Your task to perform on an android device: Open network settings Image 0: 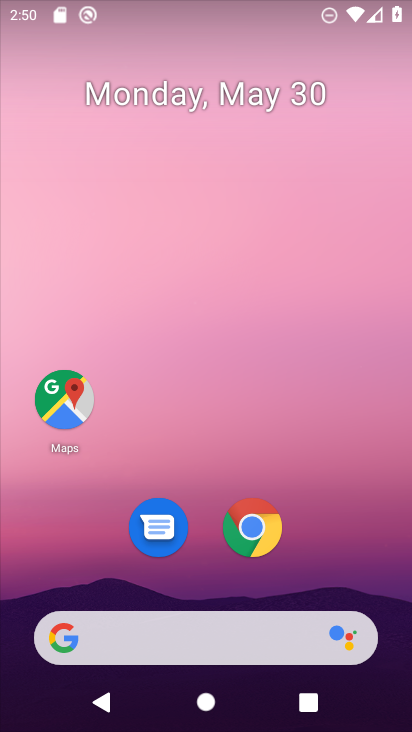
Step 0: drag from (270, 572) to (227, 81)
Your task to perform on an android device: Open network settings Image 1: 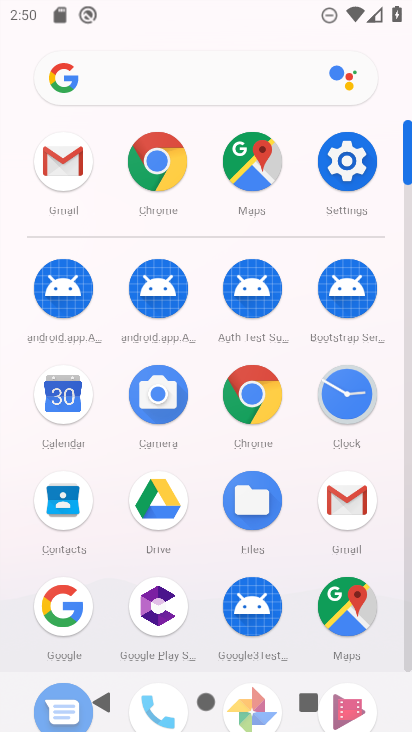
Step 1: click (345, 162)
Your task to perform on an android device: Open network settings Image 2: 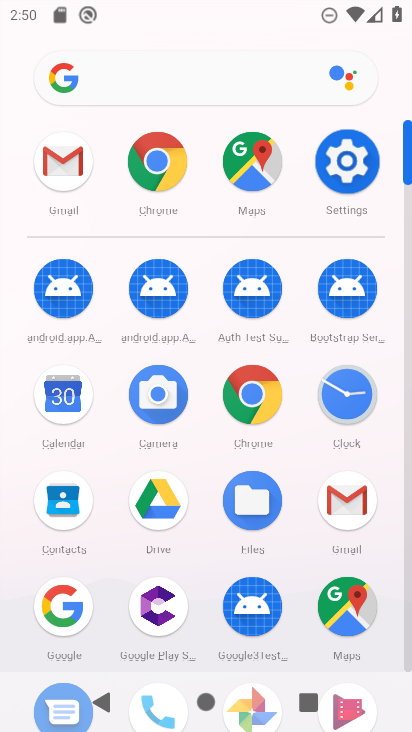
Step 2: click (345, 165)
Your task to perform on an android device: Open network settings Image 3: 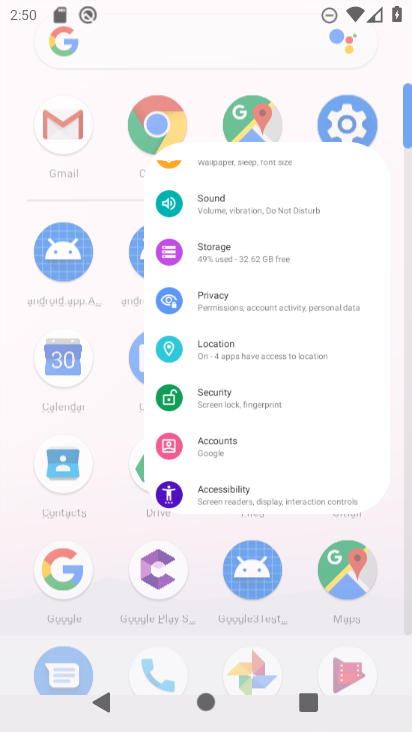
Step 3: click (345, 165)
Your task to perform on an android device: Open network settings Image 4: 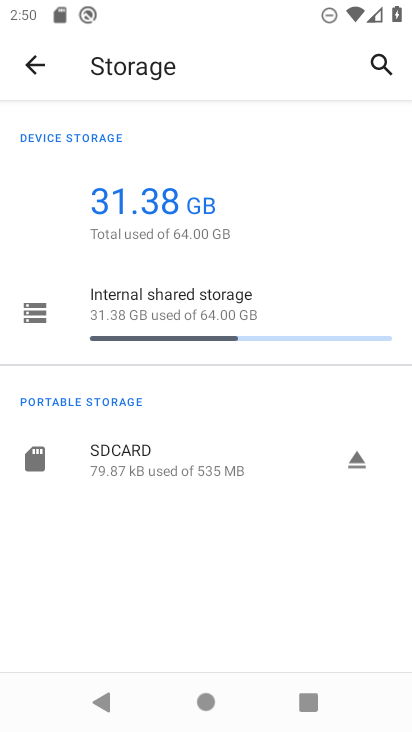
Step 4: click (34, 66)
Your task to perform on an android device: Open network settings Image 5: 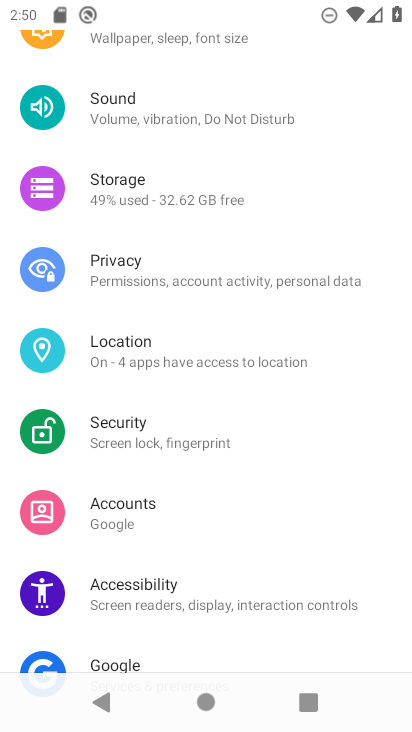
Step 5: drag from (129, 266) to (172, 559)
Your task to perform on an android device: Open network settings Image 6: 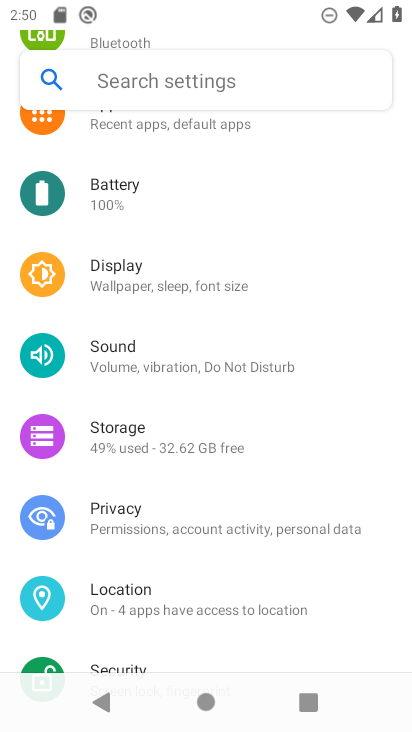
Step 6: drag from (141, 118) to (141, 394)
Your task to perform on an android device: Open network settings Image 7: 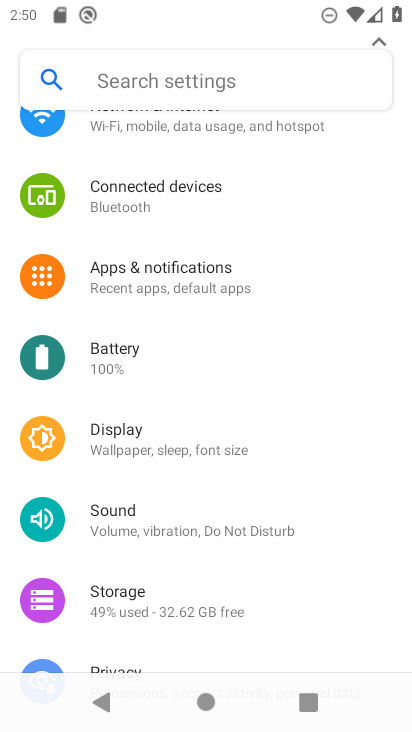
Step 7: drag from (168, 404) to (169, 308)
Your task to perform on an android device: Open network settings Image 8: 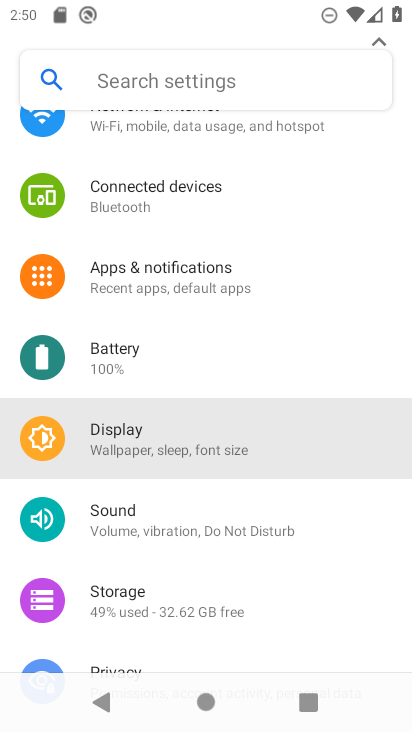
Step 8: drag from (163, 227) to (196, 443)
Your task to perform on an android device: Open network settings Image 9: 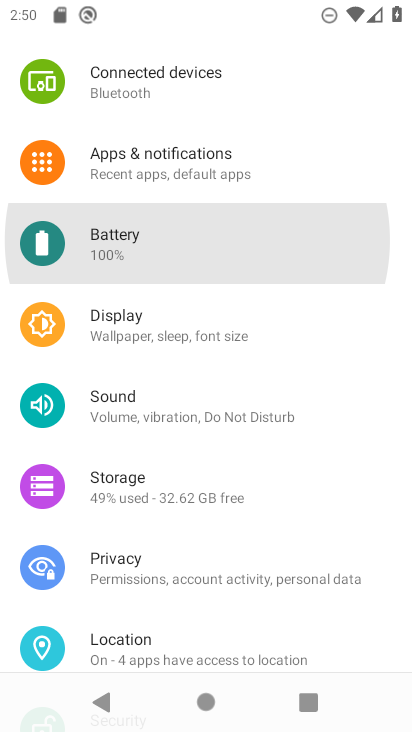
Step 9: drag from (145, 263) to (159, 432)
Your task to perform on an android device: Open network settings Image 10: 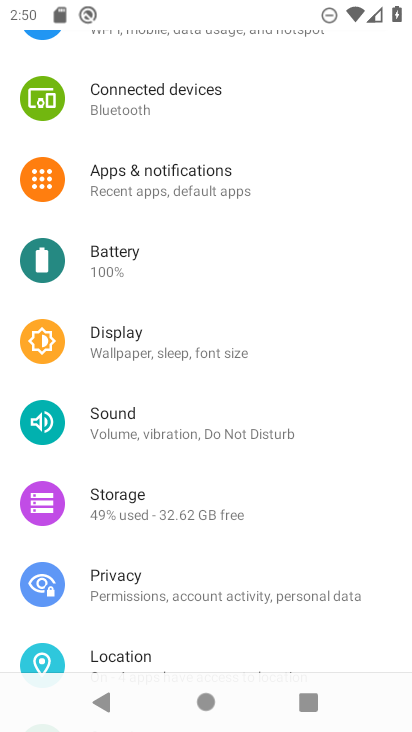
Step 10: drag from (127, 198) to (147, 351)
Your task to perform on an android device: Open network settings Image 11: 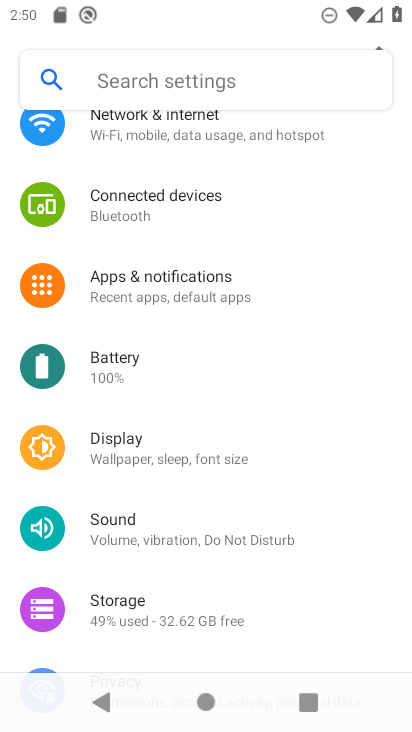
Step 11: drag from (134, 214) to (146, 418)
Your task to perform on an android device: Open network settings Image 12: 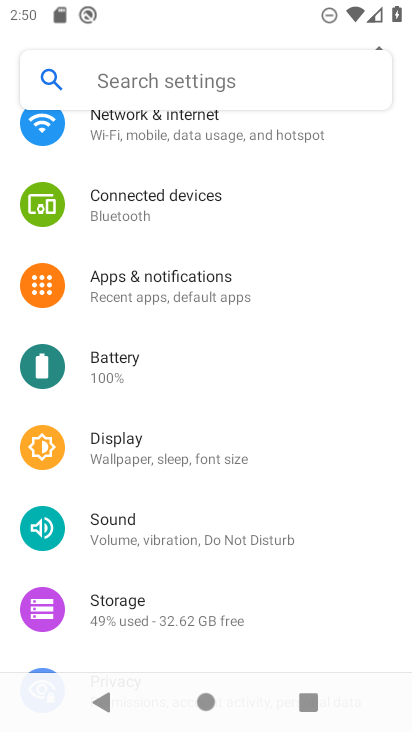
Step 12: drag from (141, 467) to (127, 557)
Your task to perform on an android device: Open network settings Image 13: 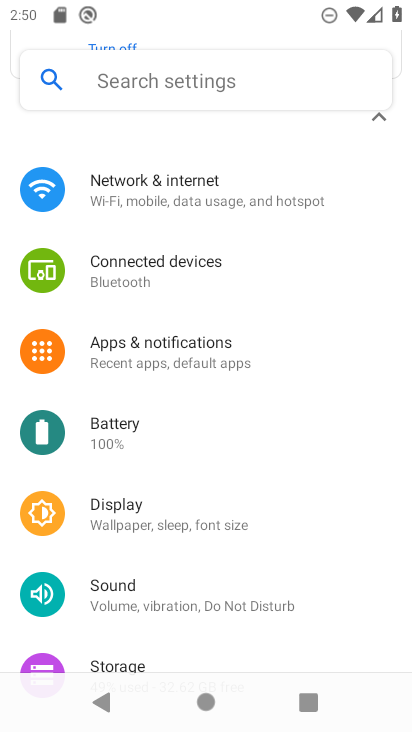
Step 13: click (160, 122)
Your task to perform on an android device: Open network settings Image 14: 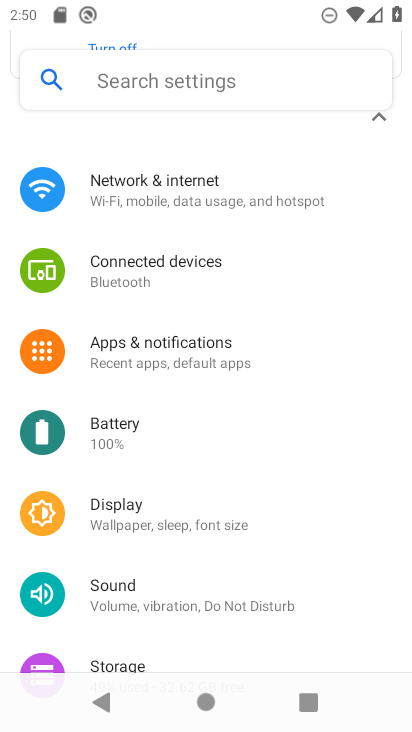
Step 14: click (160, 122)
Your task to perform on an android device: Open network settings Image 15: 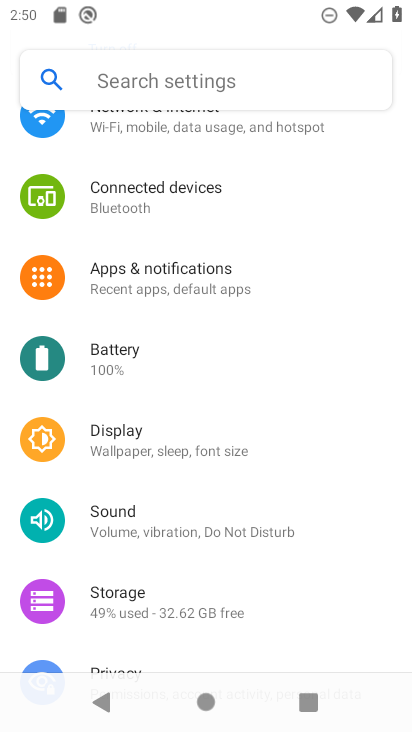
Step 15: click (160, 122)
Your task to perform on an android device: Open network settings Image 16: 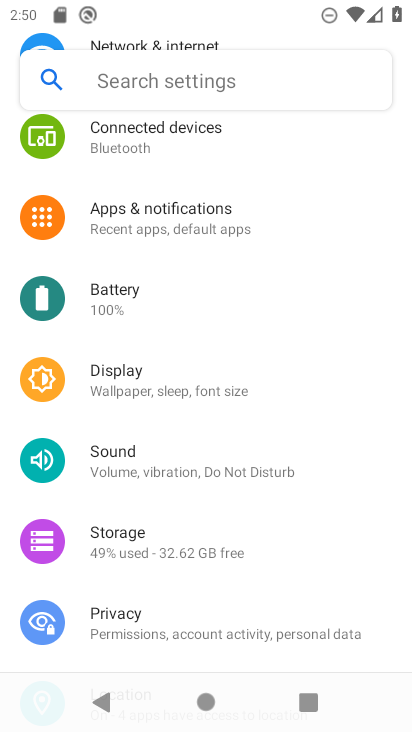
Step 16: click (160, 123)
Your task to perform on an android device: Open network settings Image 17: 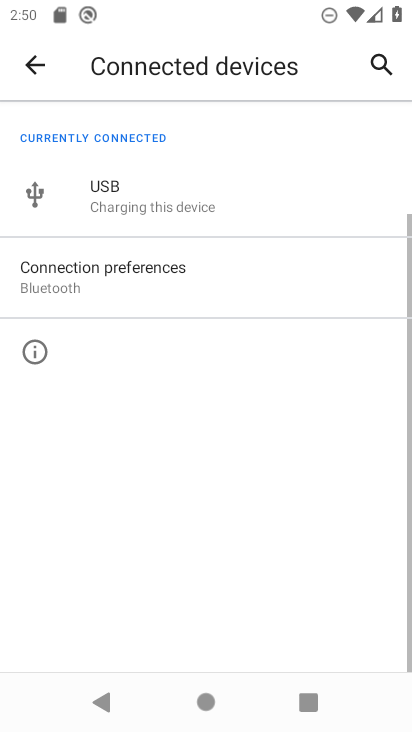
Step 17: drag from (182, 175) to (149, 494)
Your task to perform on an android device: Open network settings Image 18: 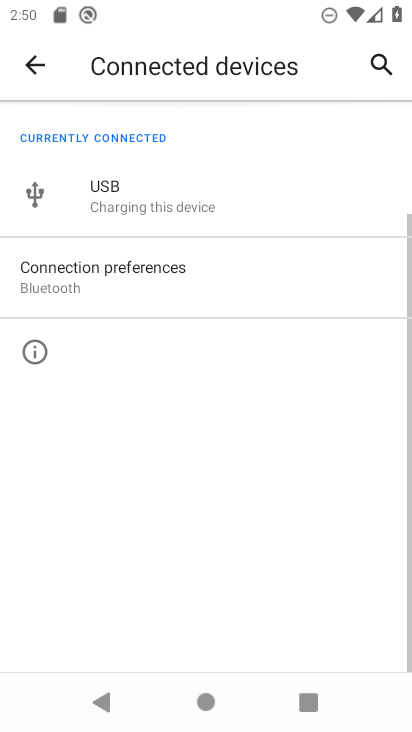
Step 18: click (28, 53)
Your task to perform on an android device: Open network settings Image 19: 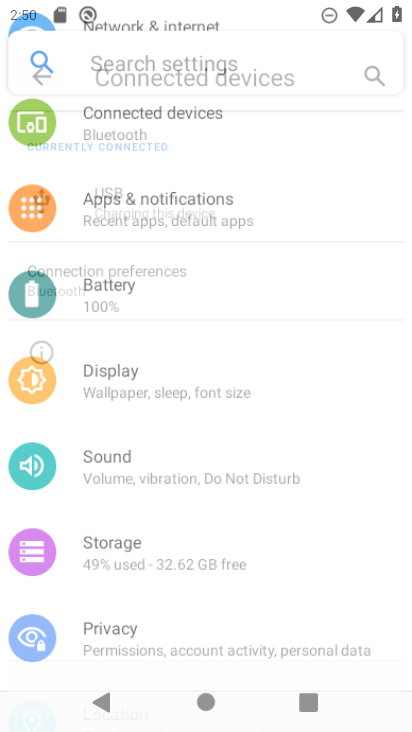
Step 19: click (28, 62)
Your task to perform on an android device: Open network settings Image 20: 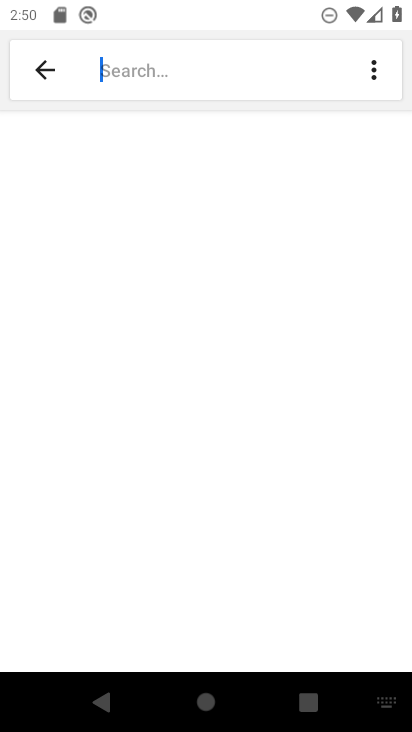
Step 20: click (40, 67)
Your task to perform on an android device: Open network settings Image 21: 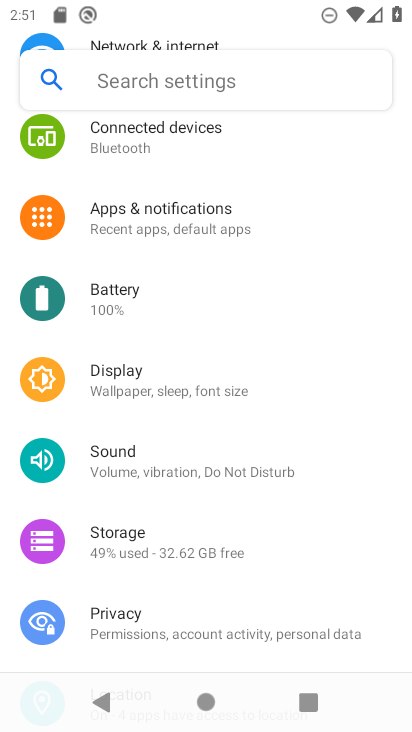
Step 21: click (131, 41)
Your task to perform on an android device: Open network settings Image 22: 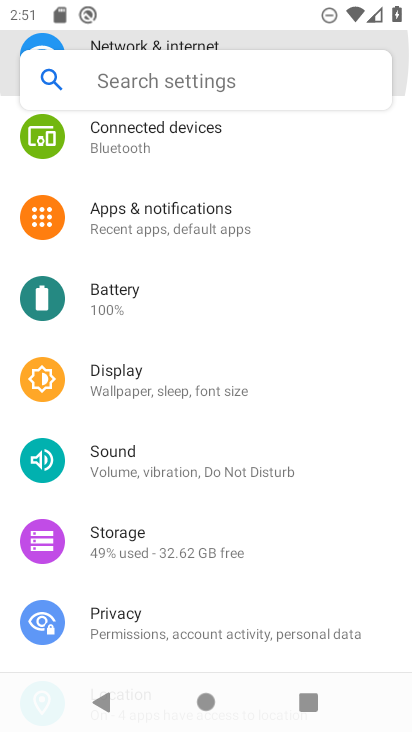
Step 22: click (131, 41)
Your task to perform on an android device: Open network settings Image 23: 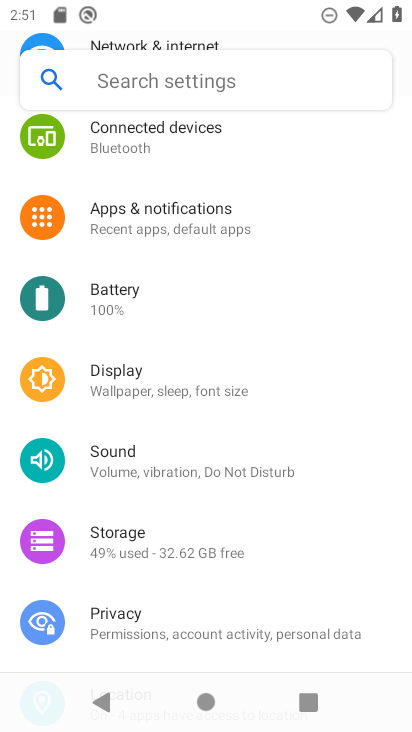
Step 23: click (131, 41)
Your task to perform on an android device: Open network settings Image 24: 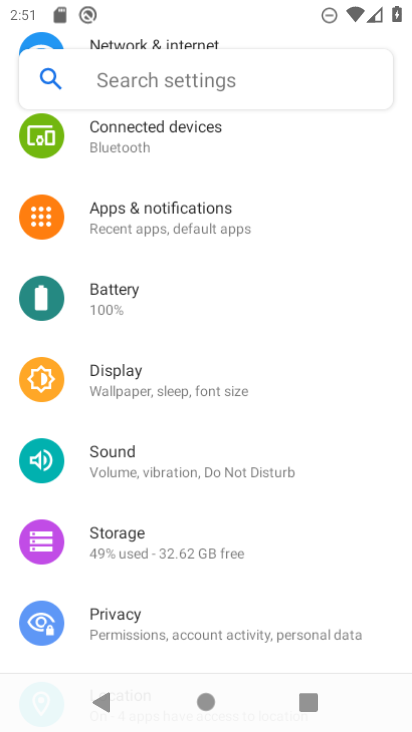
Step 24: click (131, 41)
Your task to perform on an android device: Open network settings Image 25: 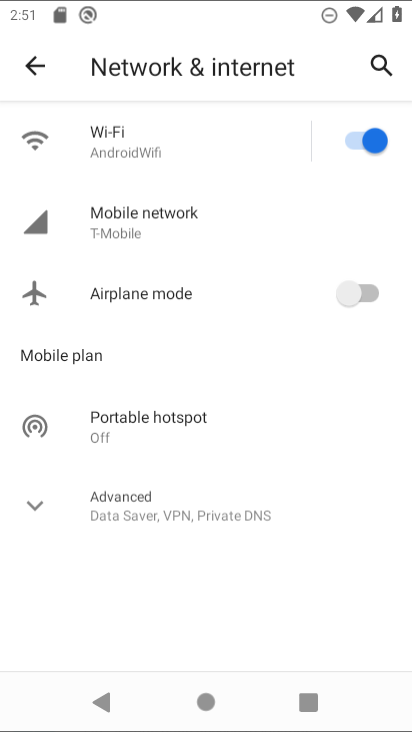
Step 25: click (131, 41)
Your task to perform on an android device: Open network settings Image 26: 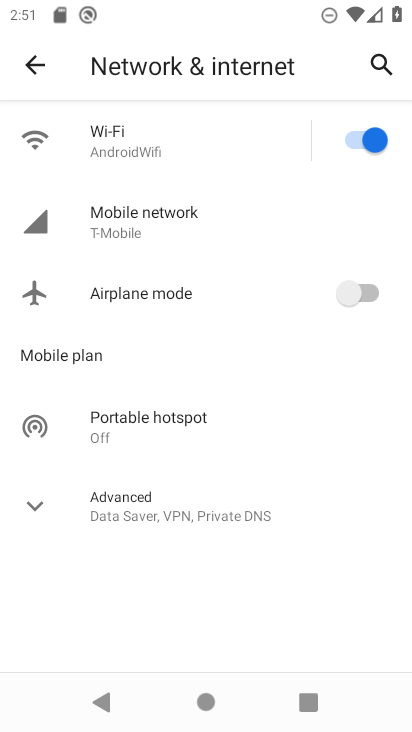
Step 26: click (131, 41)
Your task to perform on an android device: Open network settings Image 27: 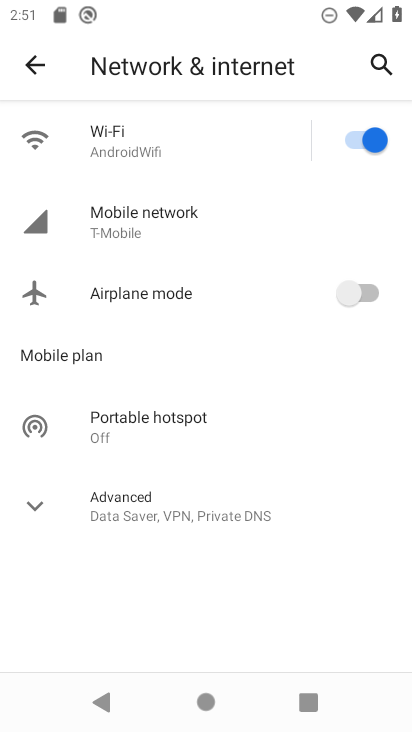
Step 27: task complete